Your task to perform on an android device: Open ESPN.com Image 0: 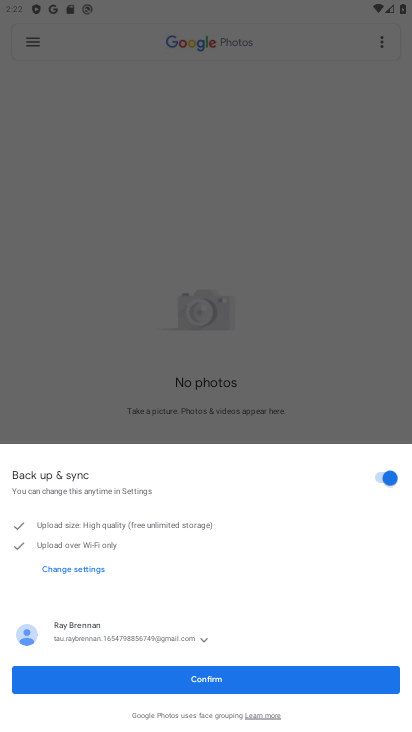
Step 0: press home button
Your task to perform on an android device: Open ESPN.com Image 1: 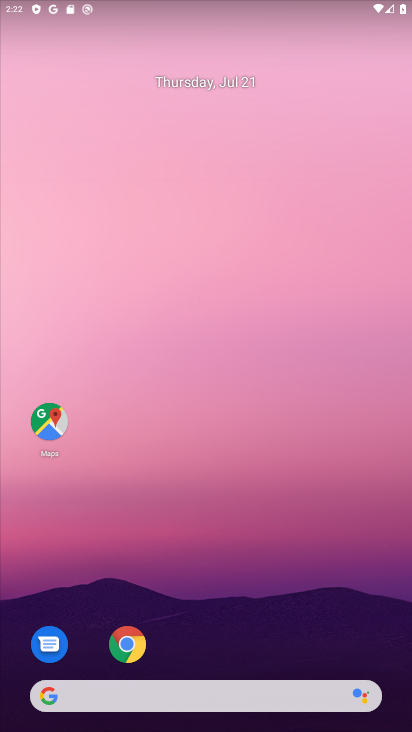
Step 1: click (124, 641)
Your task to perform on an android device: Open ESPN.com Image 2: 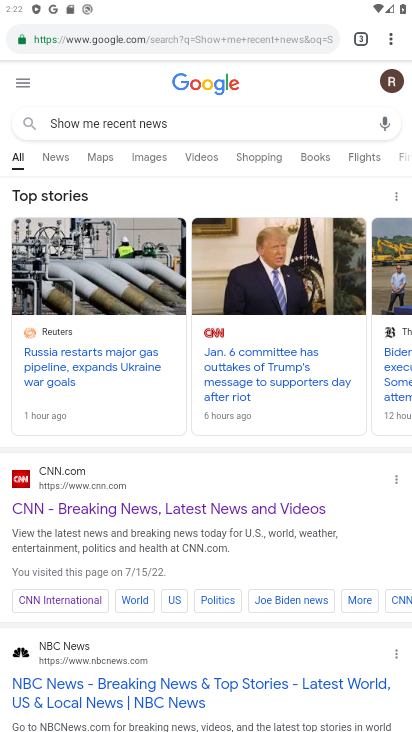
Step 2: click (360, 37)
Your task to perform on an android device: Open ESPN.com Image 3: 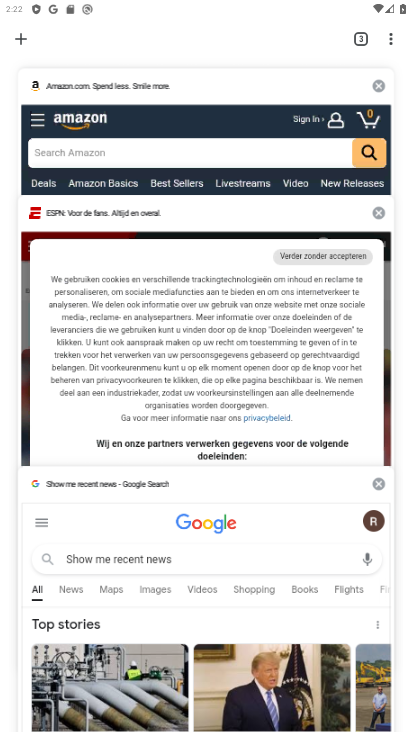
Step 3: click (17, 42)
Your task to perform on an android device: Open ESPN.com Image 4: 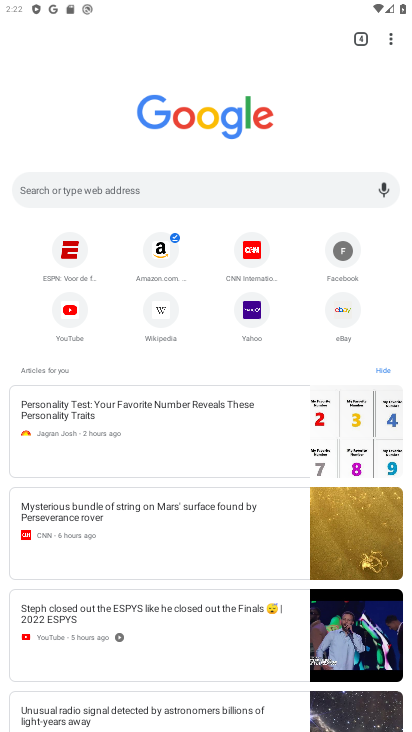
Step 4: click (71, 257)
Your task to perform on an android device: Open ESPN.com Image 5: 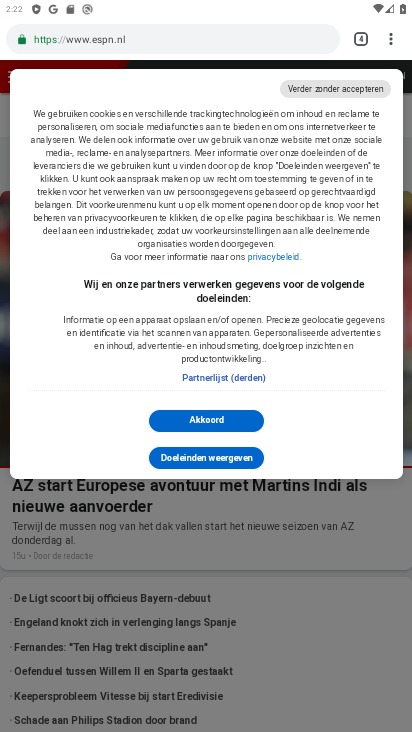
Step 5: task complete